Your task to perform on an android device: change keyboard looks Image 0: 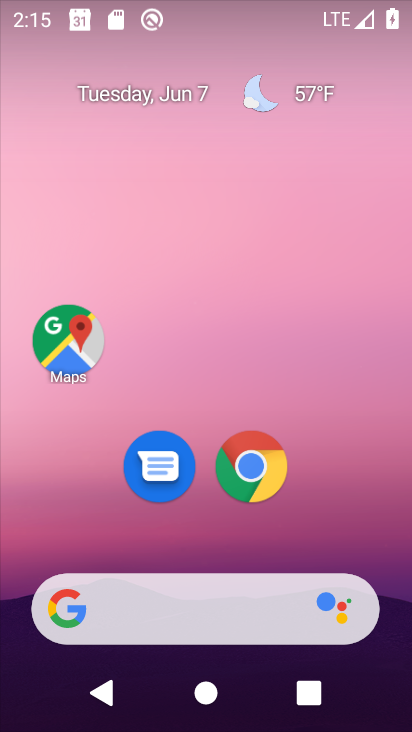
Step 0: drag from (172, 572) to (245, 62)
Your task to perform on an android device: change keyboard looks Image 1: 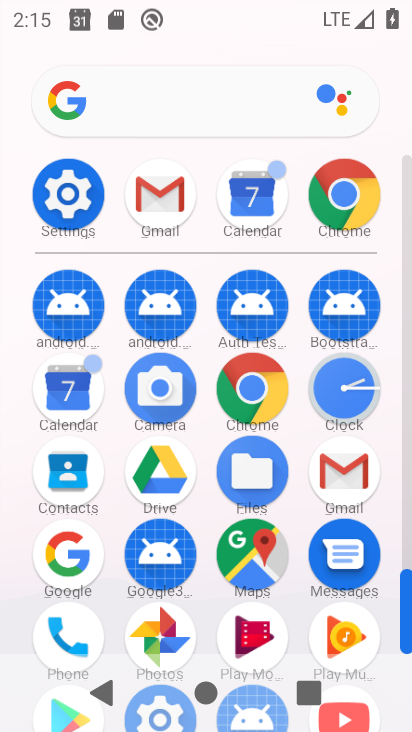
Step 1: click (85, 198)
Your task to perform on an android device: change keyboard looks Image 2: 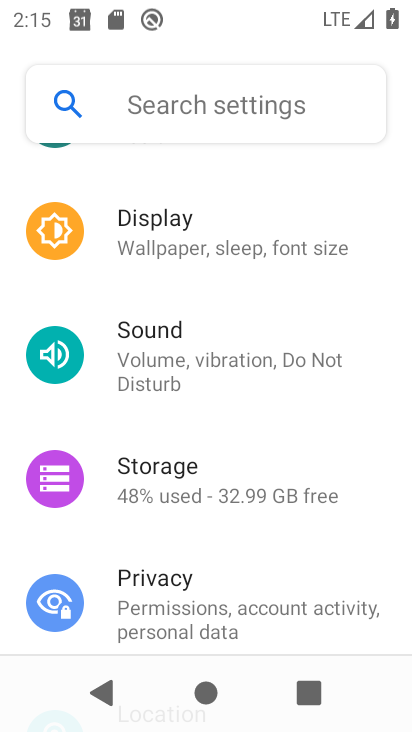
Step 2: drag from (158, 600) to (253, 48)
Your task to perform on an android device: change keyboard looks Image 3: 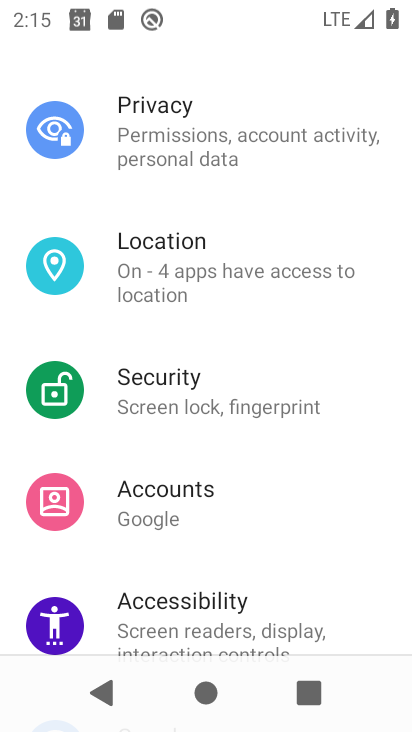
Step 3: drag from (161, 594) to (266, 4)
Your task to perform on an android device: change keyboard looks Image 4: 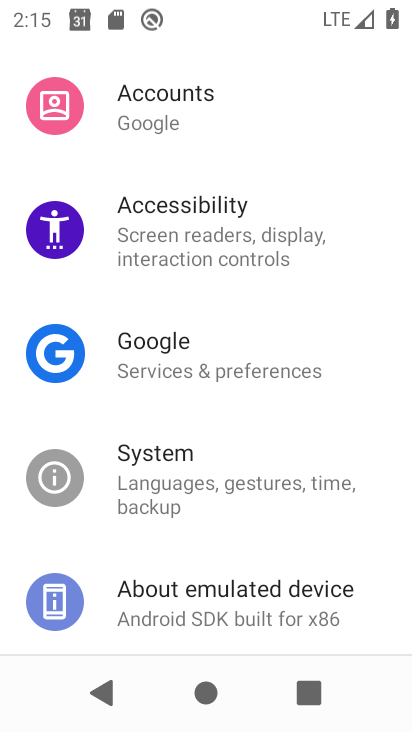
Step 4: click (159, 462)
Your task to perform on an android device: change keyboard looks Image 5: 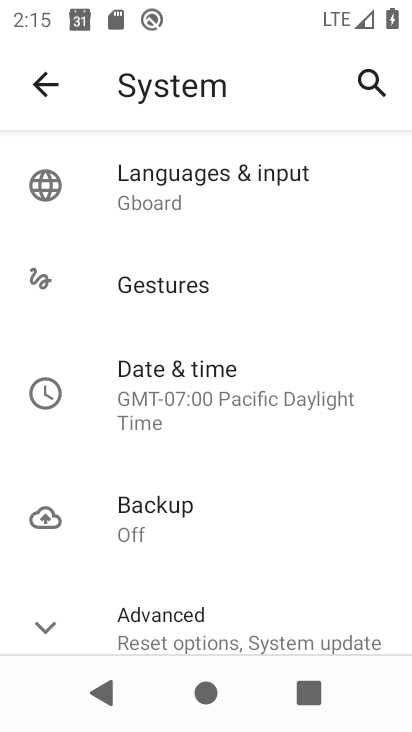
Step 5: click (174, 179)
Your task to perform on an android device: change keyboard looks Image 6: 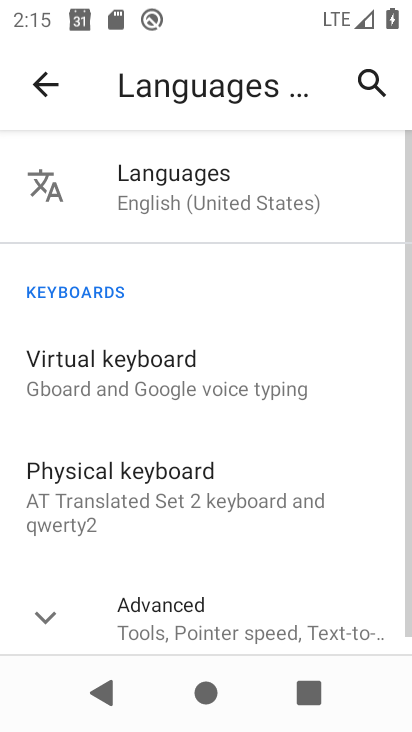
Step 6: click (120, 378)
Your task to perform on an android device: change keyboard looks Image 7: 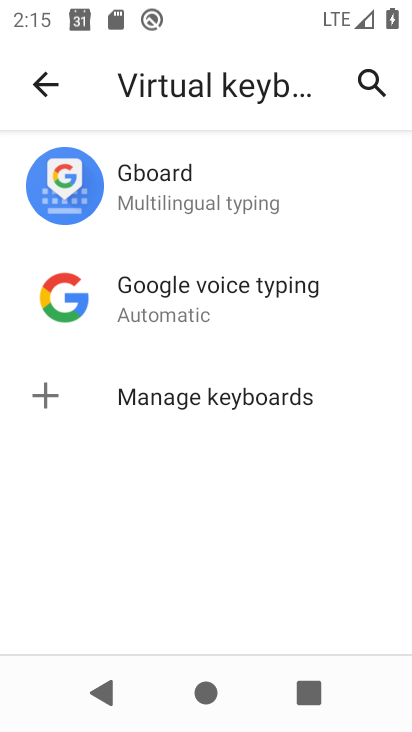
Step 7: click (195, 181)
Your task to perform on an android device: change keyboard looks Image 8: 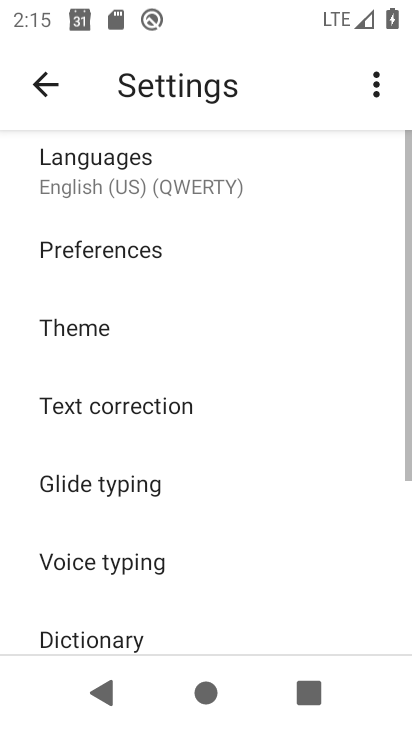
Step 8: click (111, 326)
Your task to perform on an android device: change keyboard looks Image 9: 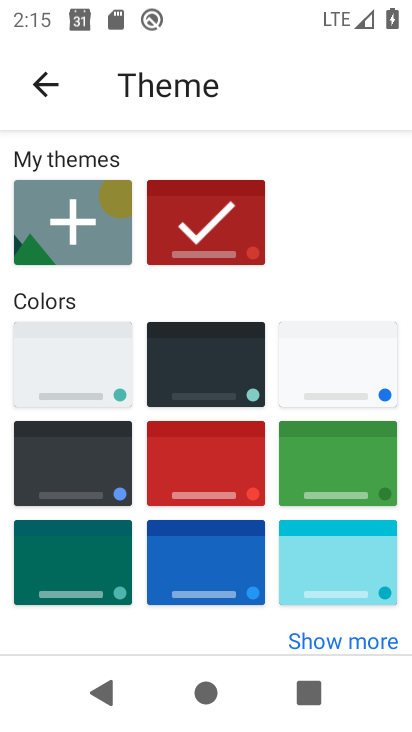
Step 9: click (329, 493)
Your task to perform on an android device: change keyboard looks Image 10: 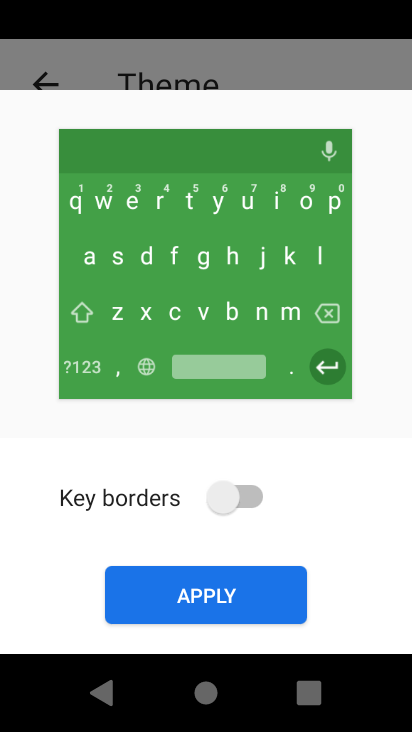
Step 10: click (199, 591)
Your task to perform on an android device: change keyboard looks Image 11: 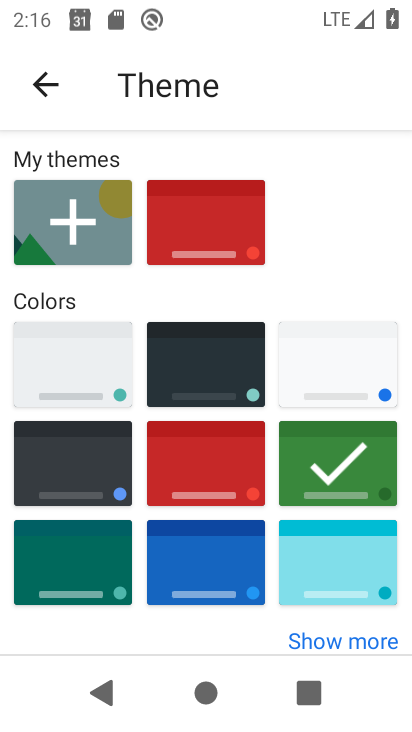
Step 11: task complete